Your task to perform on an android device: Toggle the flashlight Image 0: 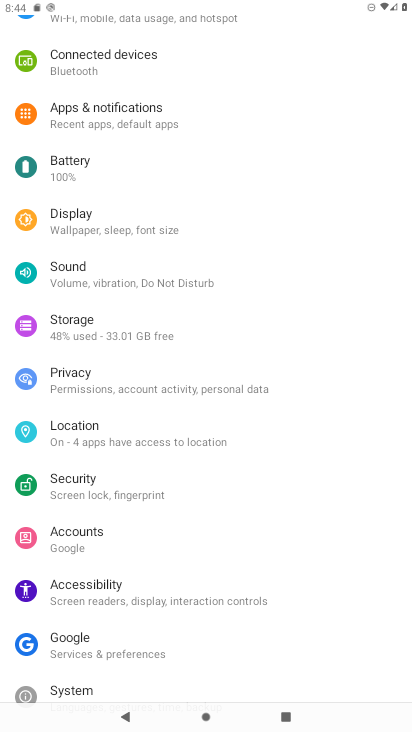
Step 0: press home button
Your task to perform on an android device: Toggle the flashlight Image 1: 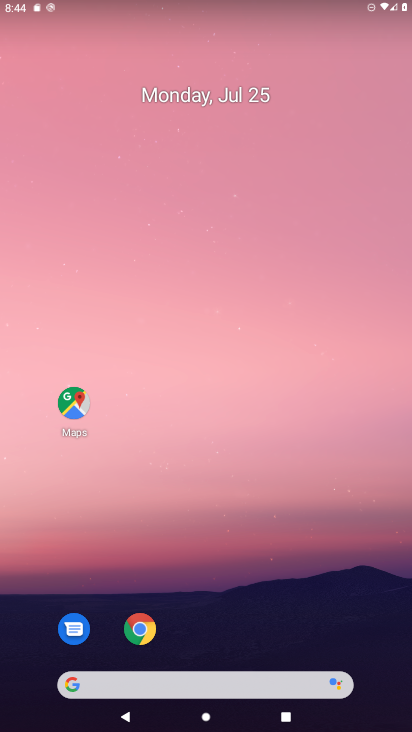
Step 1: task complete